Your task to perform on an android device: clear history in the chrome app Image 0: 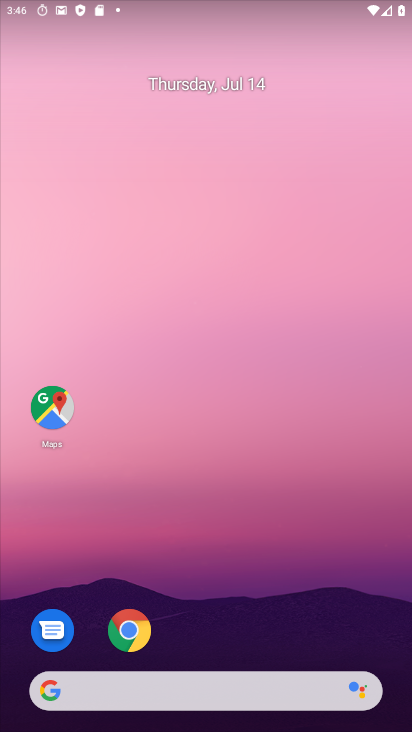
Step 0: click (126, 621)
Your task to perform on an android device: clear history in the chrome app Image 1: 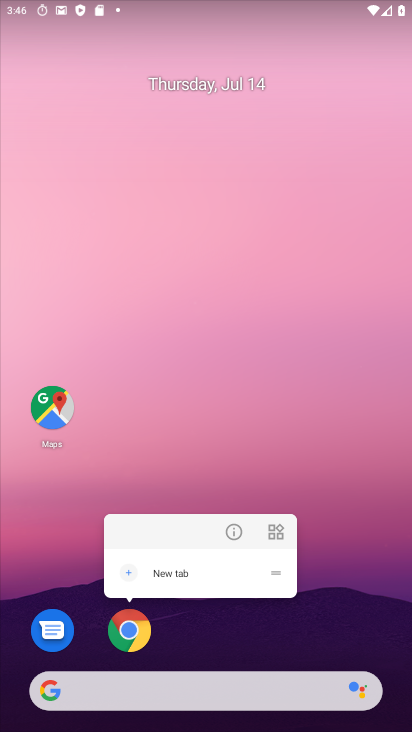
Step 1: click (118, 631)
Your task to perform on an android device: clear history in the chrome app Image 2: 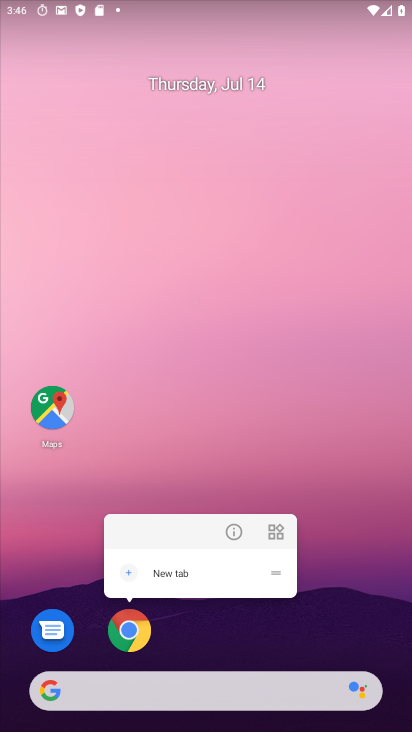
Step 2: click (118, 631)
Your task to perform on an android device: clear history in the chrome app Image 3: 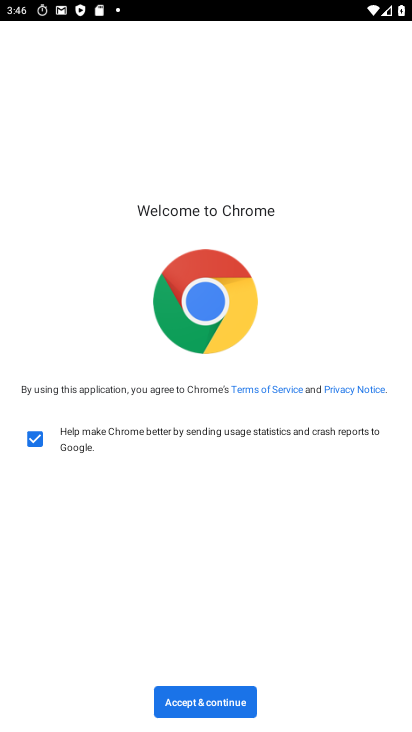
Step 3: click (218, 702)
Your task to perform on an android device: clear history in the chrome app Image 4: 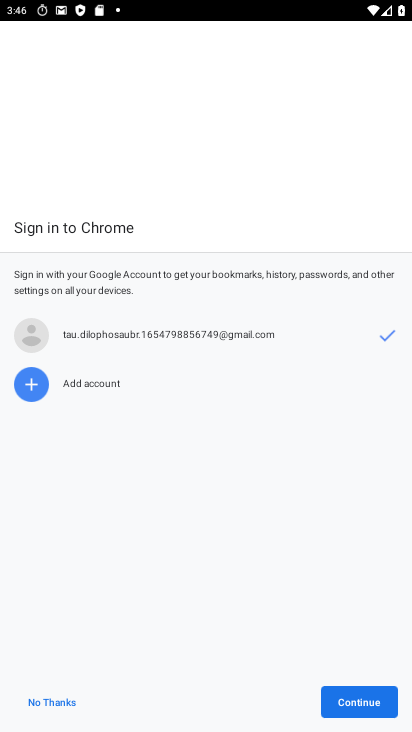
Step 4: click (347, 703)
Your task to perform on an android device: clear history in the chrome app Image 5: 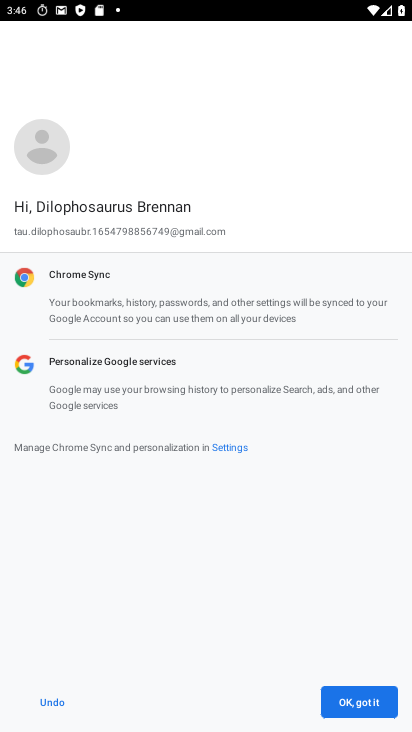
Step 5: click (347, 703)
Your task to perform on an android device: clear history in the chrome app Image 6: 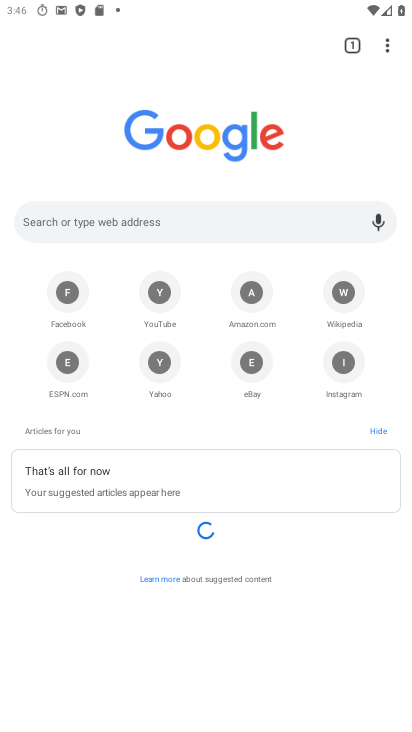
Step 6: drag from (389, 54) to (285, 262)
Your task to perform on an android device: clear history in the chrome app Image 7: 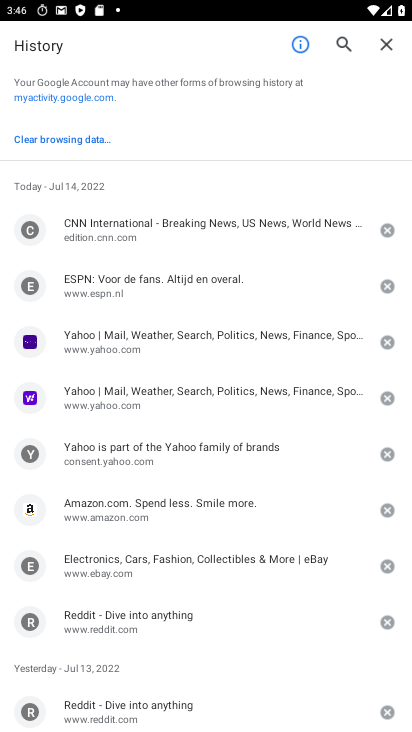
Step 7: click (75, 147)
Your task to perform on an android device: clear history in the chrome app Image 8: 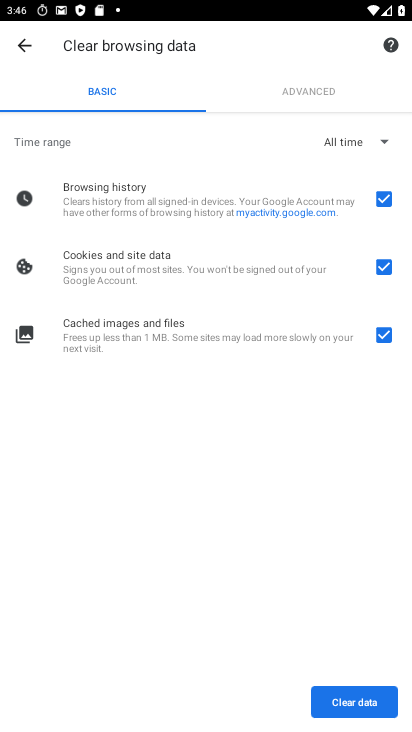
Step 8: click (370, 712)
Your task to perform on an android device: clear history in the chrome app Image 9: 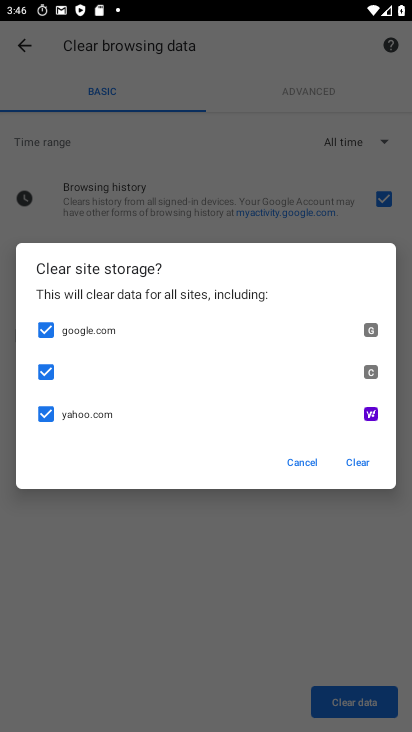
Step 9: click (341, 469)
Your task to perform on an android device: clear history in the chrome app Image 10: 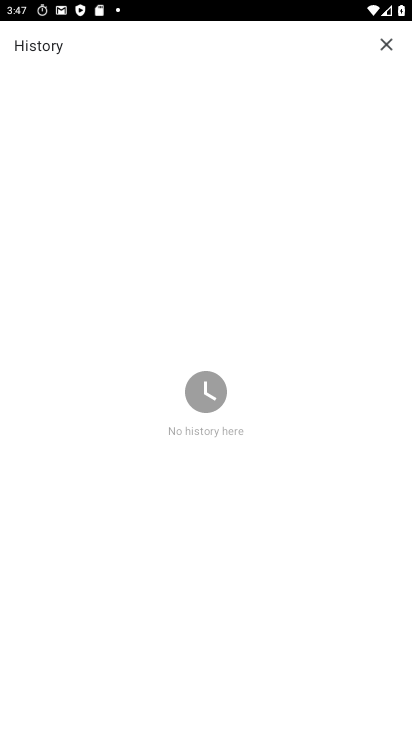
Step 10: task complete